Your task to perform on an android device: Go to Google Image 0: 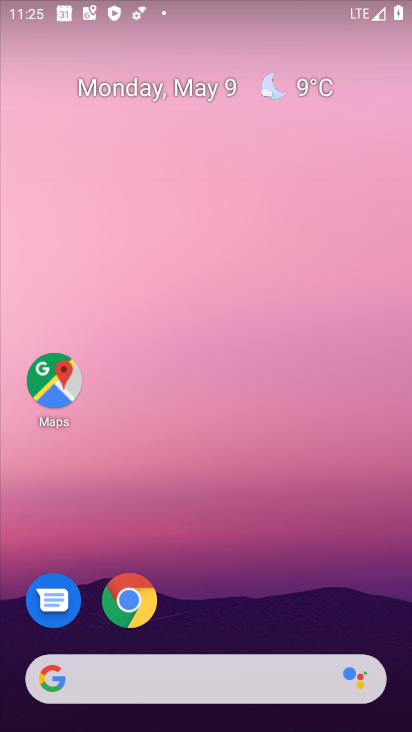
Step 0: drag from (320, 523) to (317, 63)
Your task to perform on an android device: Go to Google Image 1: 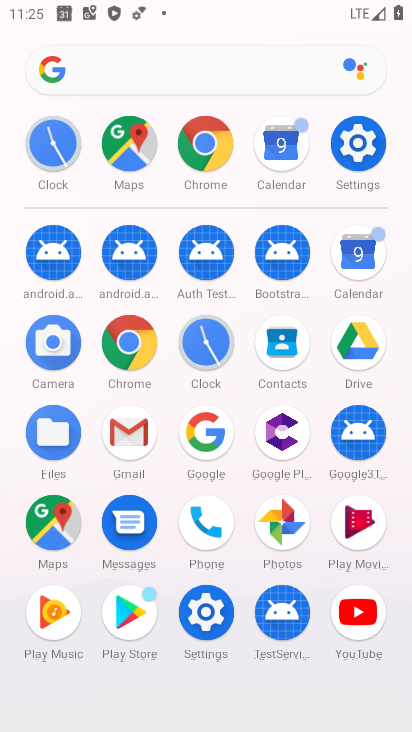
Step 1: click (222, 437)
Your task to perform on an android device: Go to Google Image 2: 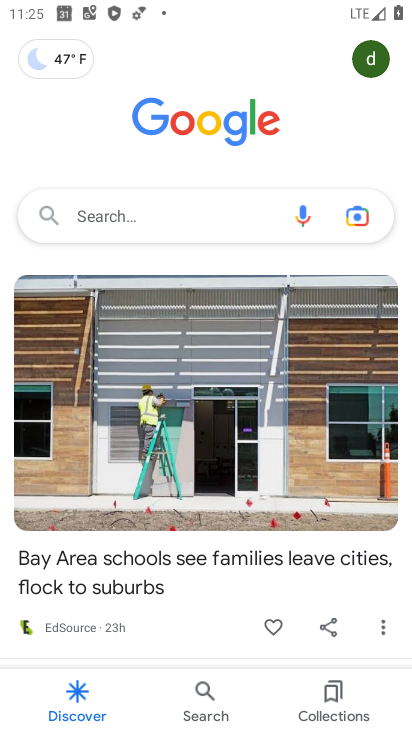
Step 2: task complete